Your task to perform on an android device: Open Google Maps Image 0: 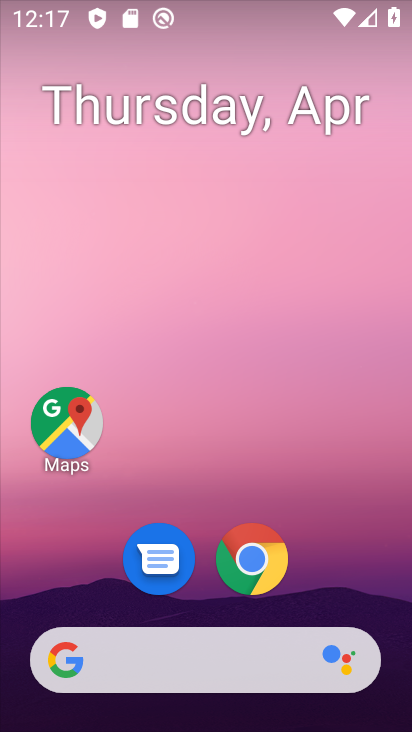
Step 0: drag from (229, 677) to (255, 316)
Your task to perform on an android device: Open Google Maps Image 1: 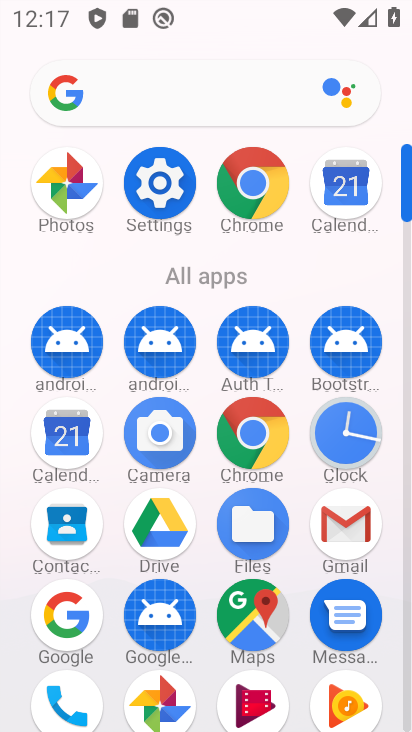
Step 1: drag from (304, 690) to (339, 498)
Your task to perform on an android device: Open Google Maps Image 2: 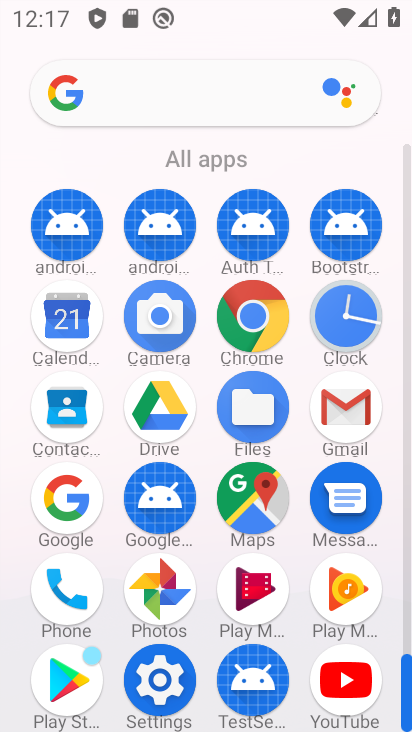
Step 2: click (234, 522)
Your task to perform on an android device: Open Google Maps Image 3: 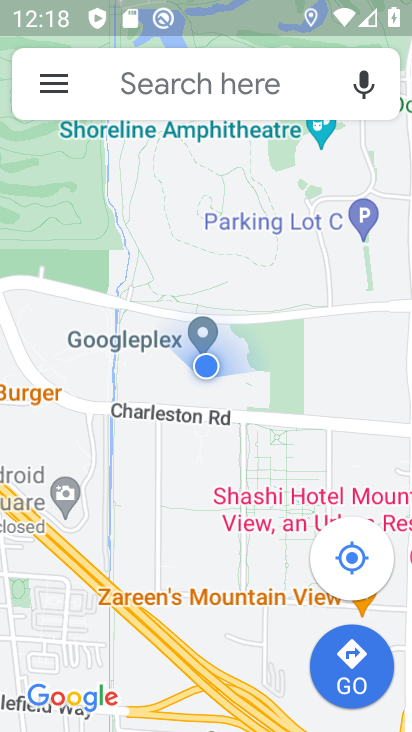
Step 3: task complete